Your task to perform on an android device: Search for seafood restaurants on Google Maps Image 0: 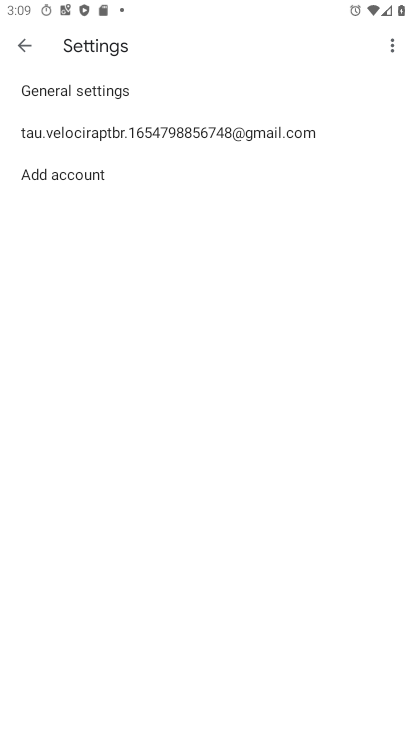
Step 0: press home button
Your task to perform on an android device: Search for seafood restaurants on Google Maps Image 1: 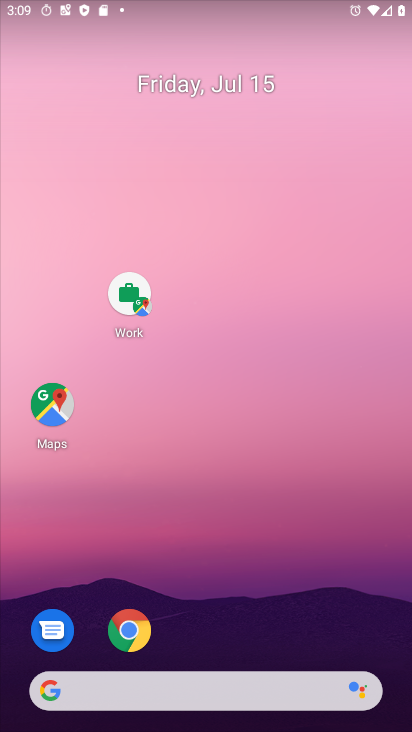
Step 1: click (71, 420)
Your task to perform on an android device: Search for seafood restaurants on Google Maps Image 2: 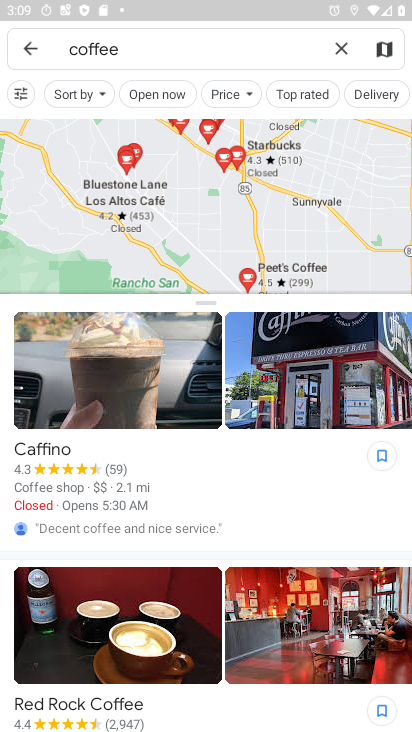
Step 2: click (339, 55)
Your task to perform on an android device: Search for seafood restaurants on Google Maps Image 3: 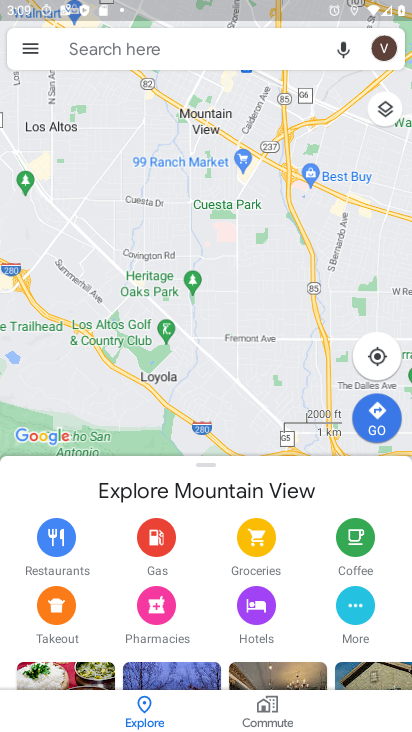
Step 3: click (133, 58)
Your task to perform on an android device: Search for seafood restaurants on Google Maps Image 4: 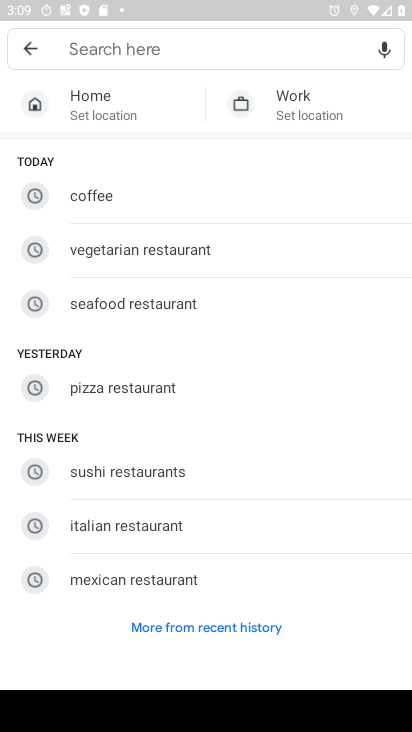
Step 4: click (149, 305)
Your task to perform on an android device: Search for seafood restaurants on Google Maps Image 5: 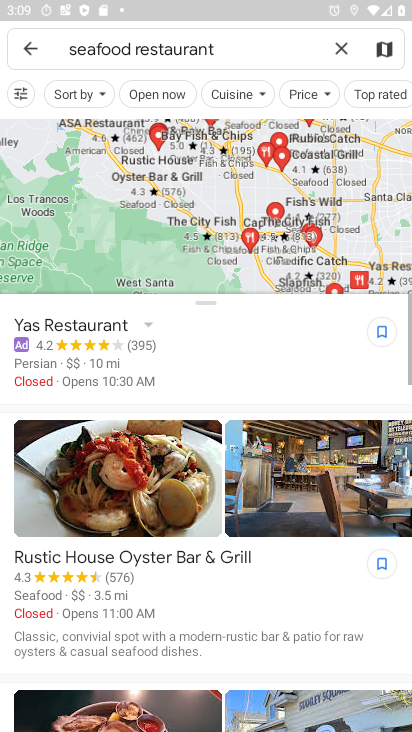
Step 5: task complete